Your task to perform on an android device: When is my next appointment? Image 0: 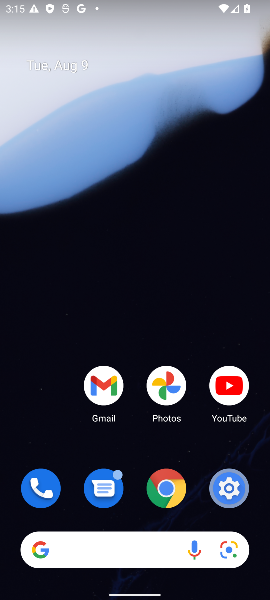
Step 0: drag from (199, 449) to (156, 104)
Your task to perform on an android device: When is my next appointment? Image 1: 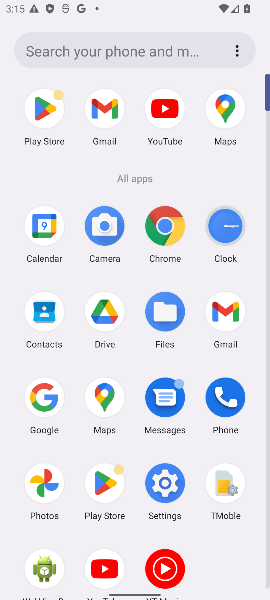
Step 1: click (42, 222)
Your task to perform on an android device: When is my next appointment? Image 2: 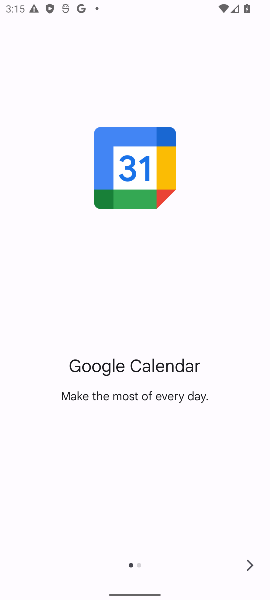
Step 2: click (256, 574)
Your task to perform on an android device: When is my next appointment? Image 3: 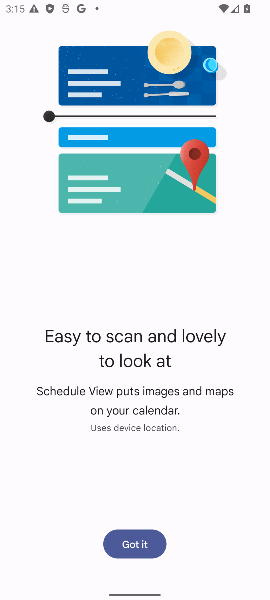
Step 3: click (143, 542)
Your task to perform on an android device: When is my next appointment? Image 4: 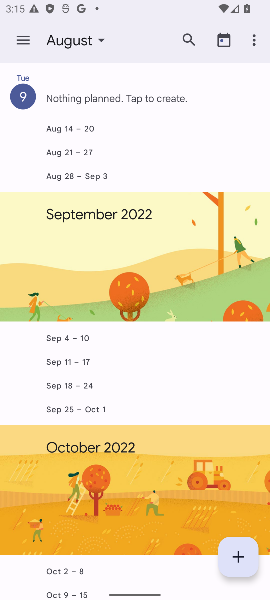
Step 4: task complete